Your task to perform on an android device: allow cookies in the chrome app Image 0: 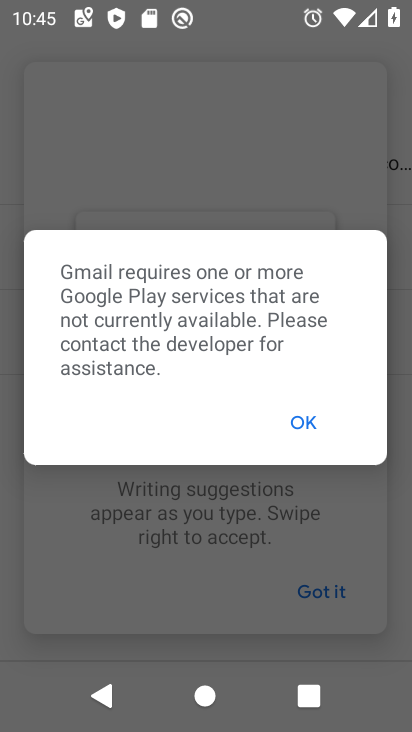
Step 0: press home button
Your task to perform on an android device: allow cookies in the chrome app Image 1: 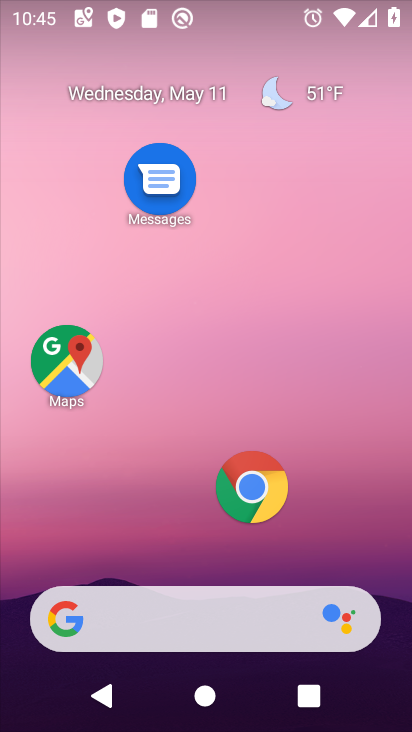
Step 1: click (260, 482)
Your task to perform on an android device: allow cookies in the chrome app Image 2: 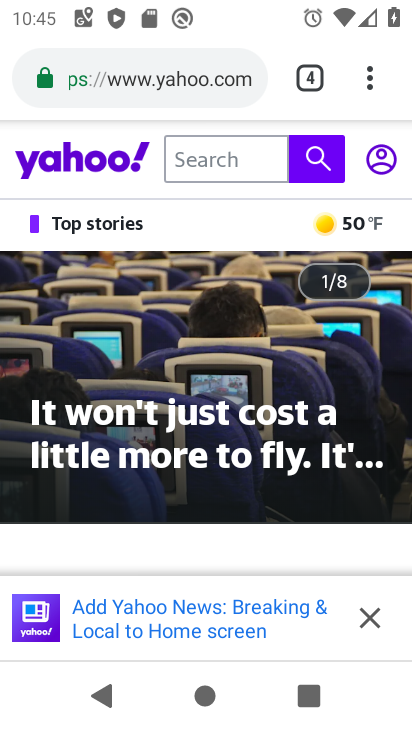
Step 2: click (372, 71)
Your task to perform on an android device: allow cookies in the chrome app Image 3: 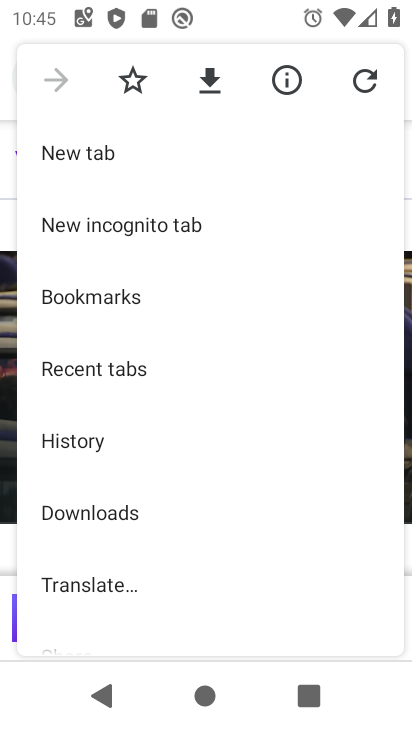
Step 3: drag from (184, 536) to (192, 319)
Your task to perform on an android device: allow cookies in the chrome app Image 4: 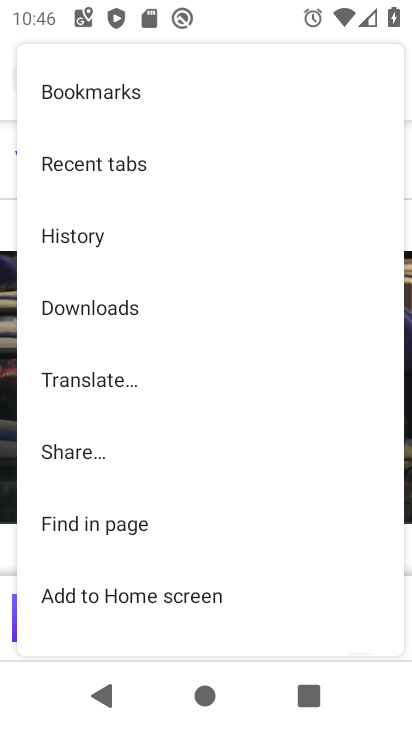
Step 4: drag from (176, 543) to (171, 278)
Your task to perform on an android device: allow cookies in the chrome app Image 5: 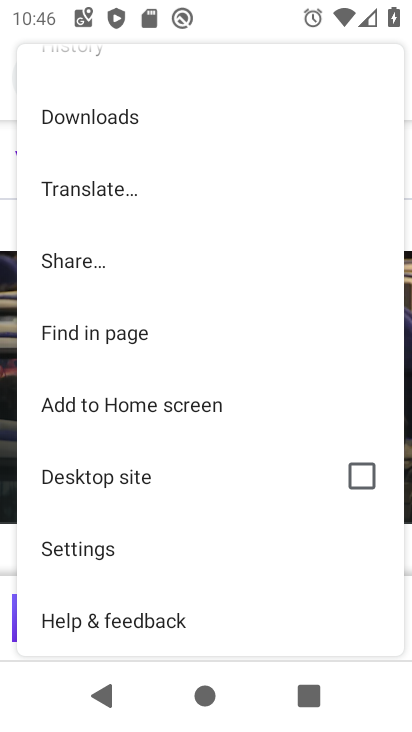
Step 5: click (137, 541)
Your task to perform on an android device: allow cookies in the chrome app Image 6: 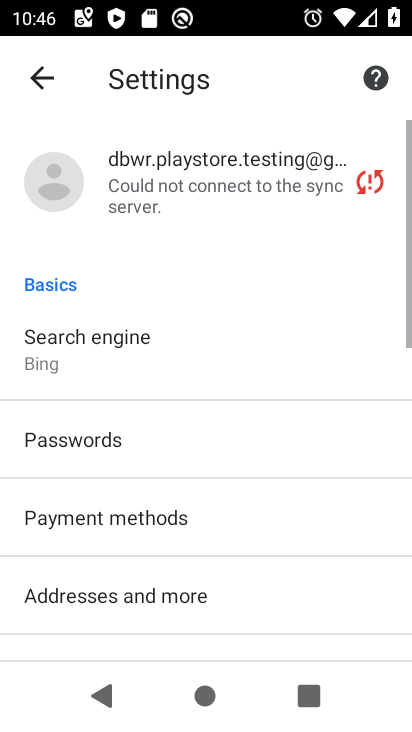
Step 6: drag from (137, 541) to (213, 347)
Your task to perform on an android device: allow cookies in the chrome app Image 7: 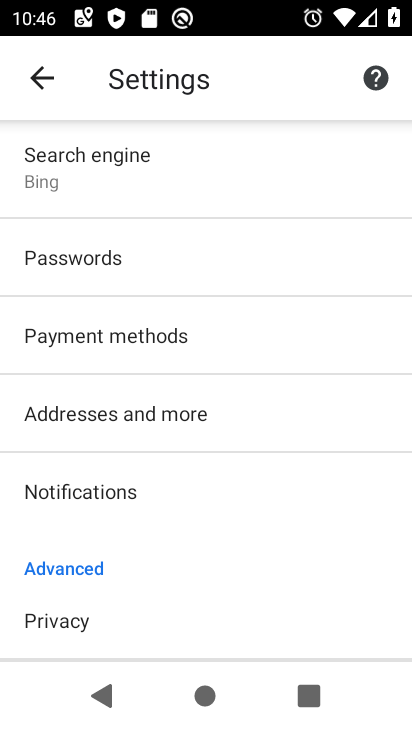
Step 7: drag from (173, 575) to (179, 289)
Your task to perform on an android device: allow cookies in the chrome app Image 8: 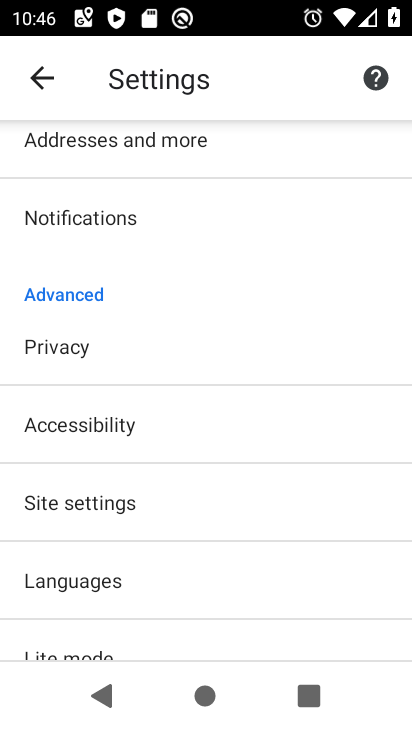
Step 8: click (127, 488)
Your task to perform on an android device: allow cookies in the chrome app Image 9: 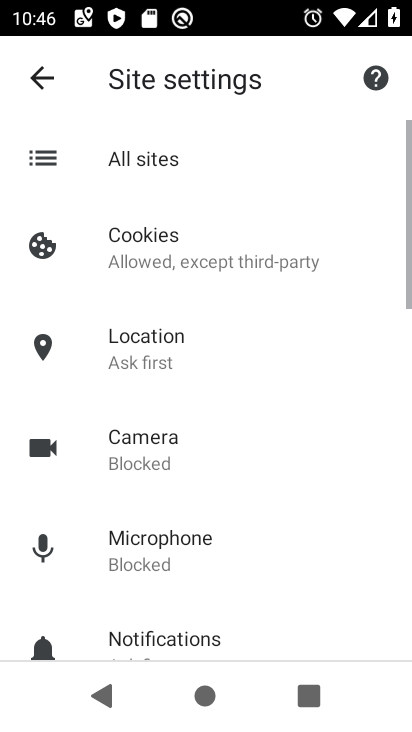
Step 9: click (184, 244)
Your task to perform on an android device: allow cookies in the chrome app Image 10: 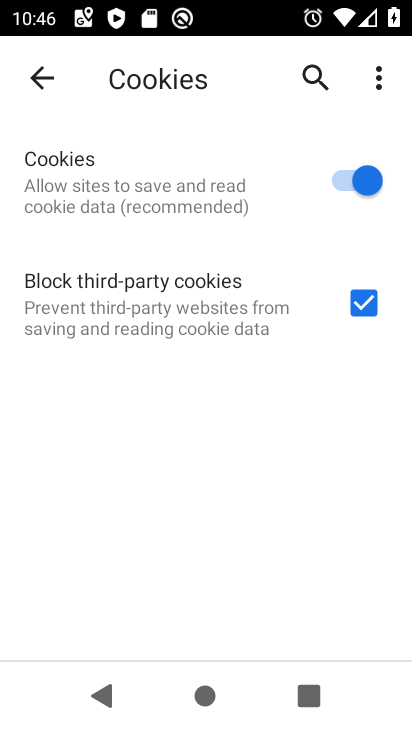
Step 10: task complete